Your task to perform on an android device: turn off location Image 0: 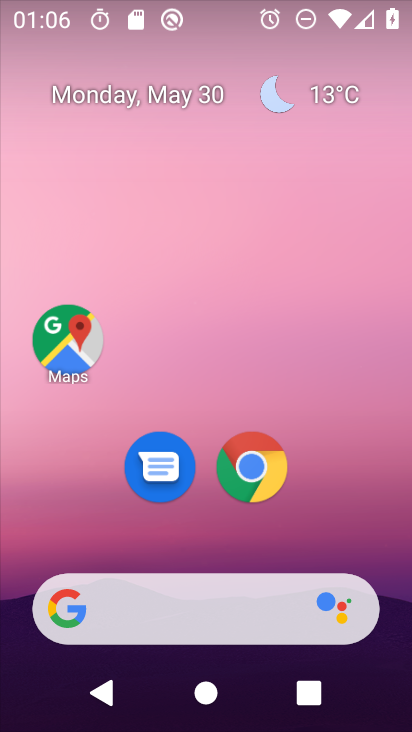
Step 0: drag from (207, 458) to (201, 179)
Your task to perform on an android device: turn off location Image 1: 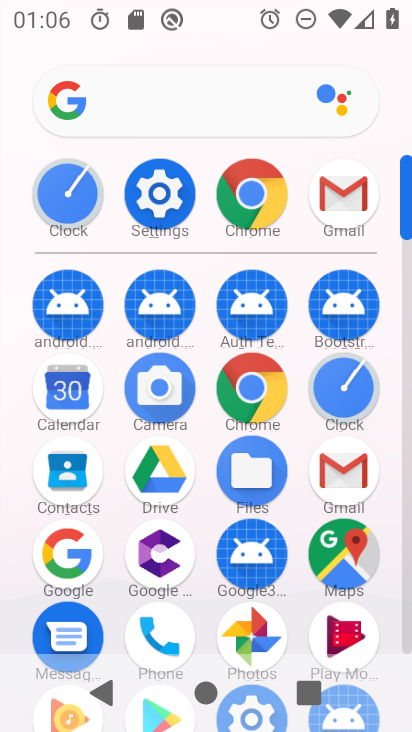
Step 1: click (172, 201)
Your task to perform on an android device: turn off location Image 2: 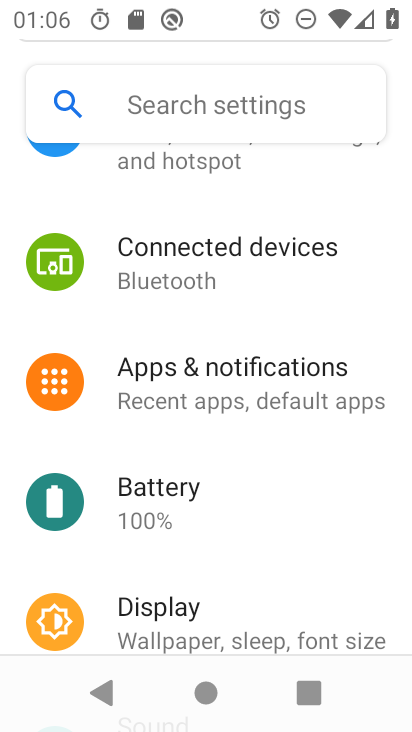
Step 2: drag from (250, 576) to (264, 255)
Your task to perform on an android device: turn off location Image 3: 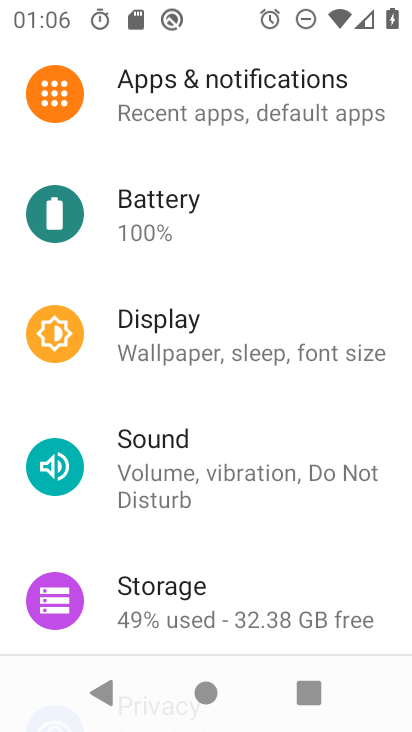
Step 3: drag from (262, 516) to (264, 260)
Your task to perform on an android device: turn off location Image 4: 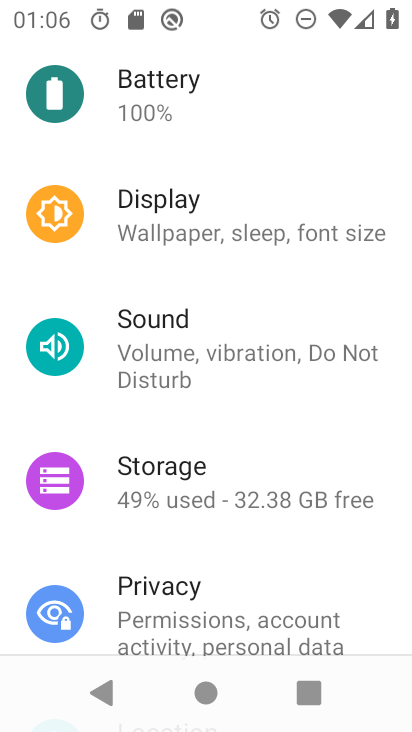
Step 4: drag from (243, 560) to (240, 200)
Your task to perform on an android device: turn off location Image 5: 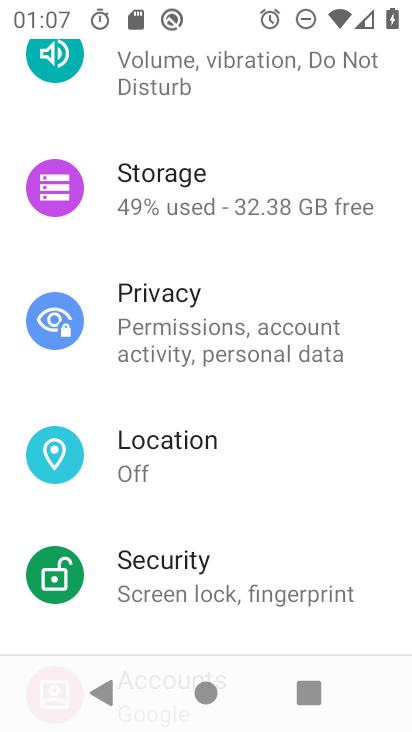
Step 5: click (207, 472)
Your task to perform on an android device: turn off location Image 6: 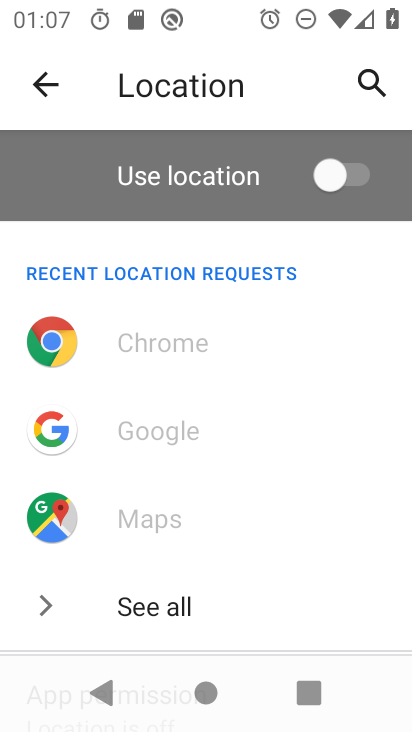
Step 6: task complete